Your task to perform on an android device: toggle pop-ups in chrome Image 0: 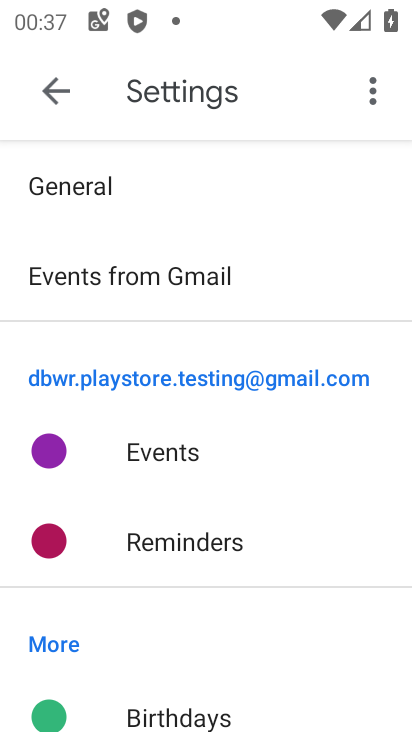
Step 0: press back button
Your task to perform on an android device: toggle pop-ups in chrome Image 1: 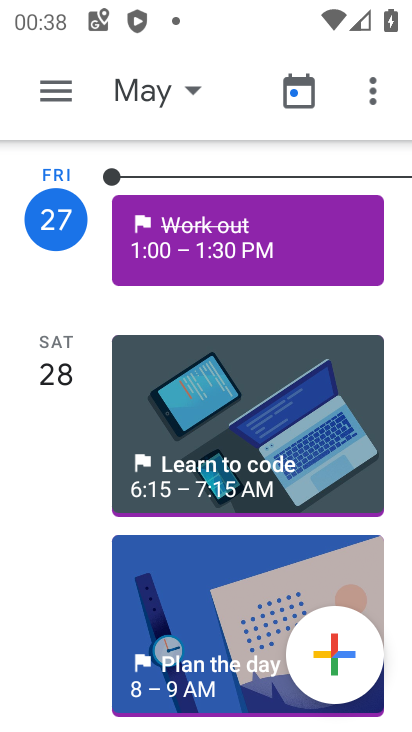
Step 1: press back button
Your task to perform on an android device: toggle pop-ups in chrome Image 2: 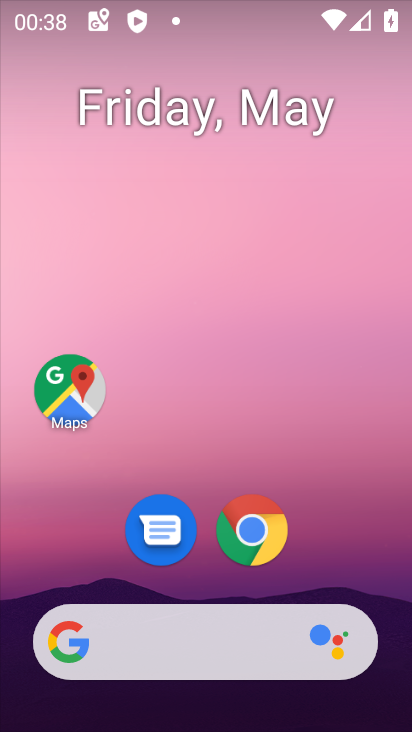
Step 2: click (252, 529)
Your task to perform on an android device: toggle pop-ups in chrome Image 3: 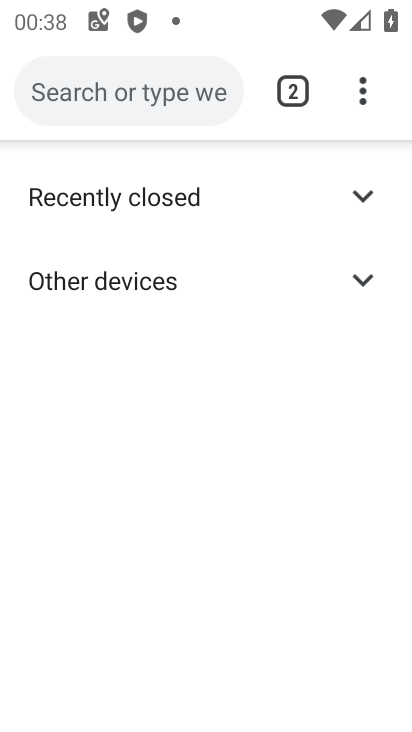
Step 3: click (361, 88)
Your task to perform on an android device: toggle pop-ups in chrome Image 4: 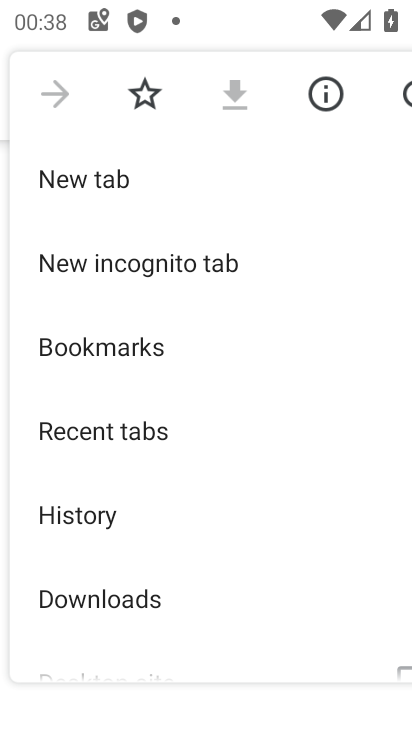
Step 4: drag from (123, 486) to (168, 415)
Your task to perform on an android device: toggle pop-ups in chrome Image 5: 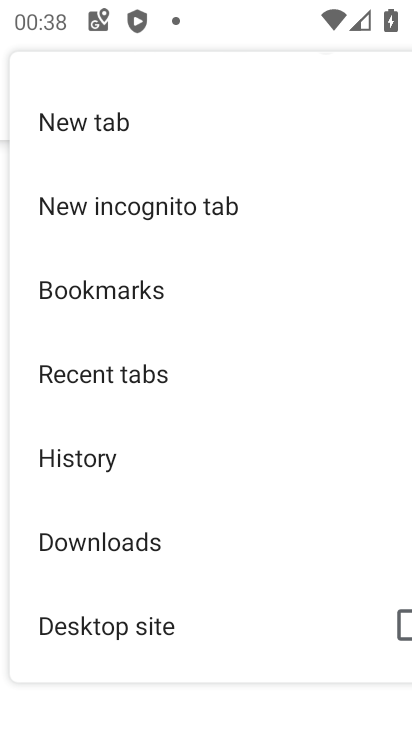
Step 5: drag from (108, 506) to (167, 427)
Your task to perform on an android device: toggle pop-ups in chrome Image 6: 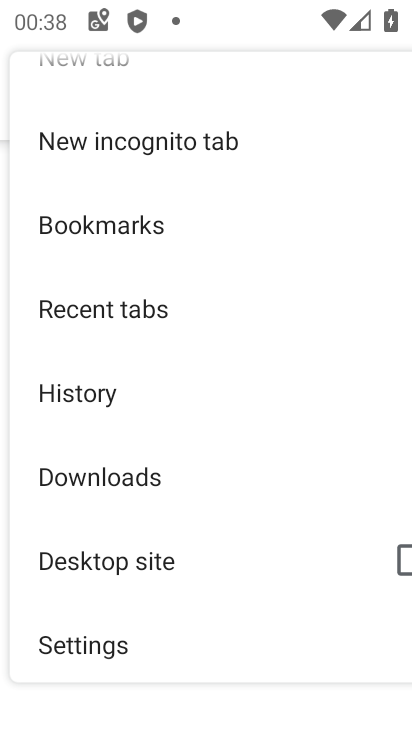
Step 6: drag from (103, 522) to (154, 418)
Your task to perform on an android device: toggle pop-ups in chrome Image 7: 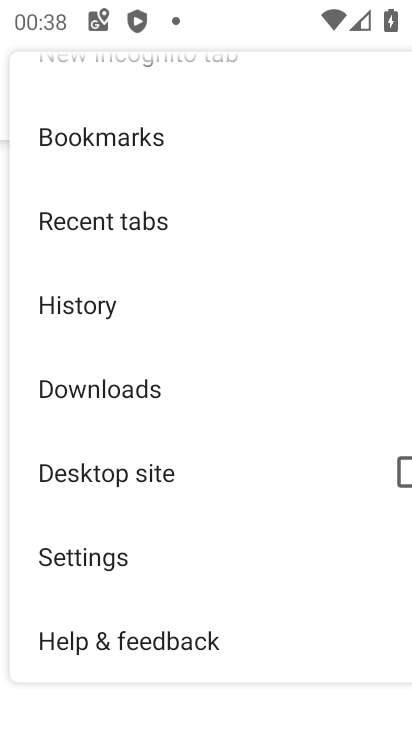
Step 7: click (73, 560)
Your task to perform on an android device: toggle pop-ups in chrome Image 8: 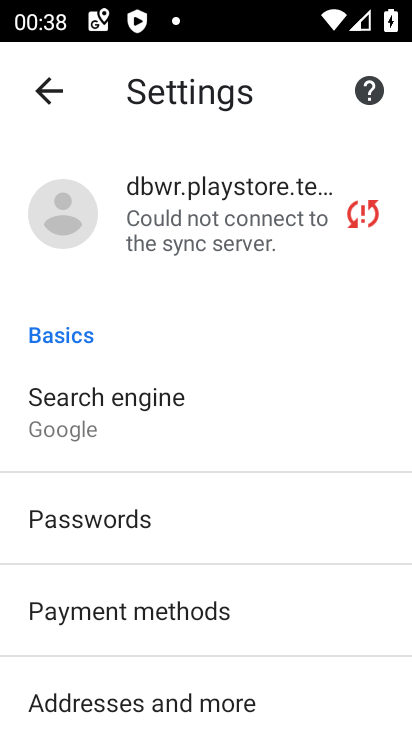
Step 8: drag from (93, 500) to (151, 419)
Your task to perform on an android device: toggle pop-ups in chrome Image 9: 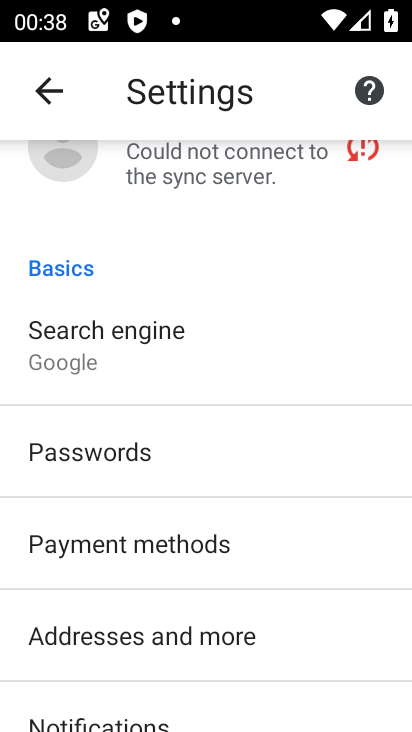
Step 9: drag from (120, 567) to (197, 472)
Your task to perform on an android device: toggle pop-ups in chrome Image 10: 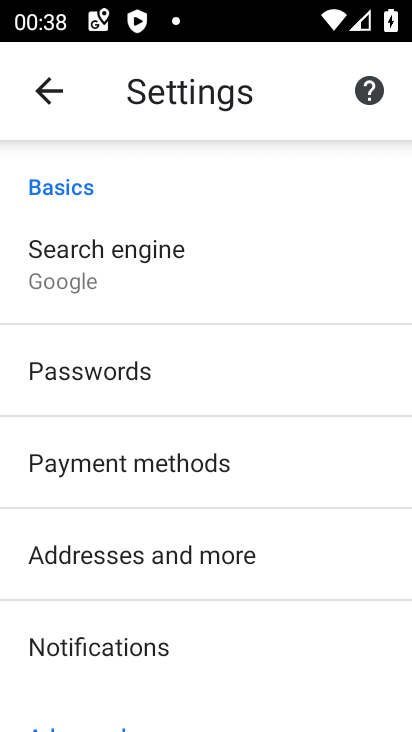
Step 10: drag from (123, 581) to (203, 480)
Your task to perform on an android device: toggle pop-ups in chrome Image 11: 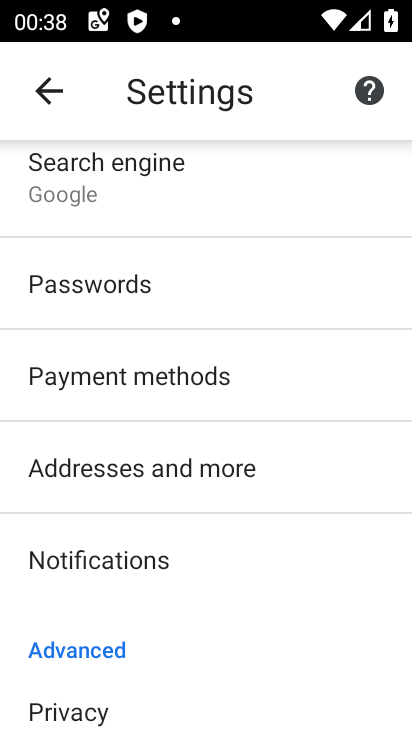
Step 11: drag from (125, 600) to (210, 489)
Your task to perform on an android device: toggle pop-ups in chrome Image 12: 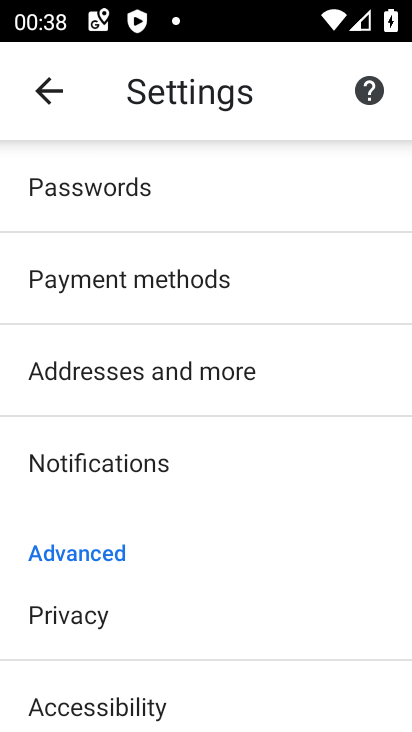
Step 12: drag from (104, 602) to (188, 499)
Your task to perform on an android device: toggle pop-ups in chrome Image 13: 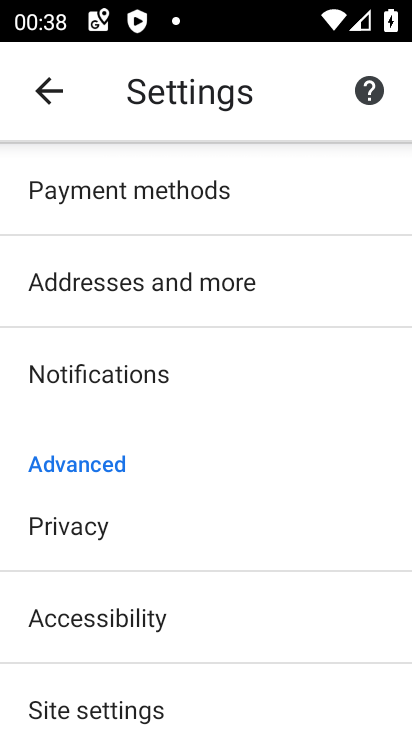
Step 13: drag from (106, 596) to (222, 480)
Your task to perform on an android device: toggle pop-ups in chrome Image 14: 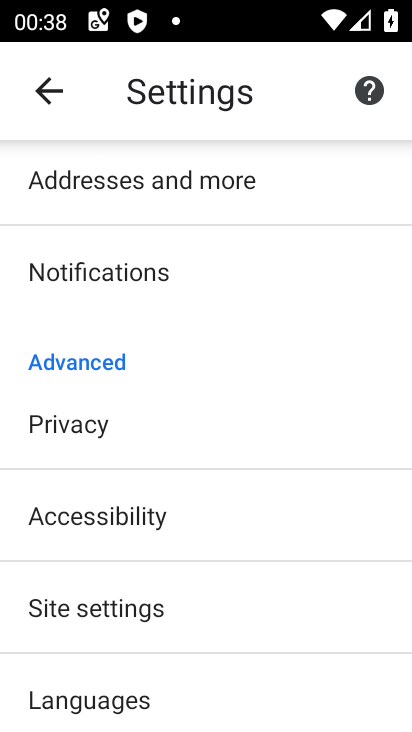
Step 14: click (106, 631)
Your task to perform on an android device: toggle pop-ups in chrome Image 15: 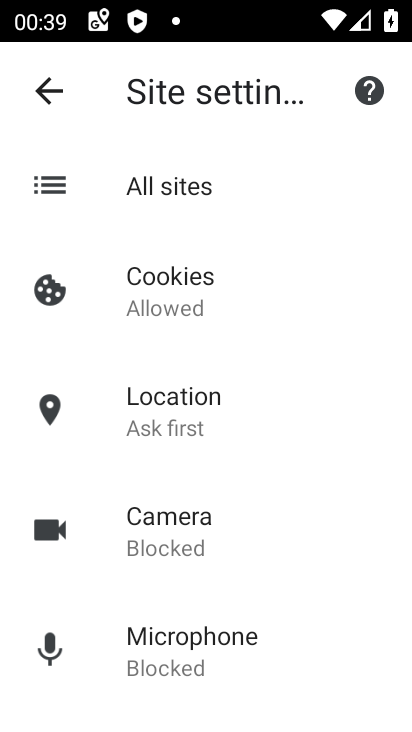
Step 15: drag from (105, 510) to (162, 416)
Your task to perform on an android device: toggle pop-ups in chrome Image 16: 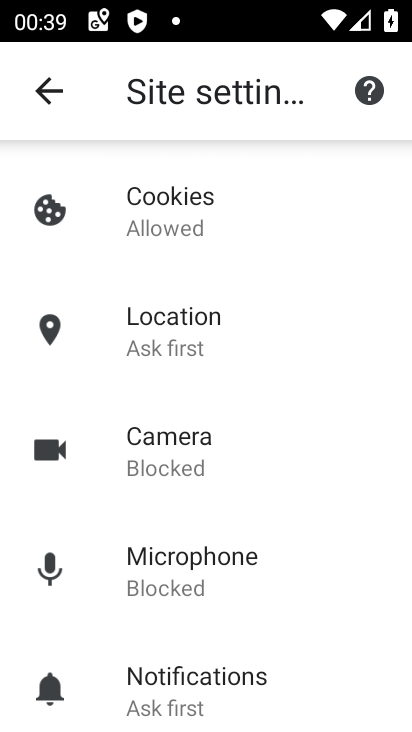
Step 16: drag from (141, 611) to (221, 493)
Your task to perform on an android device: toggle pop-ups in chrome Image 17: 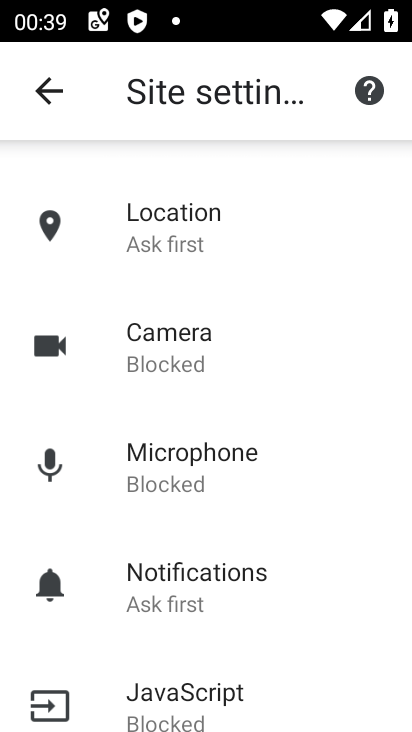
Step 17: drag from (171, 654) to (271, 531)
Your task to perform on an android device: toggle pop-ups in chrome Image 18: 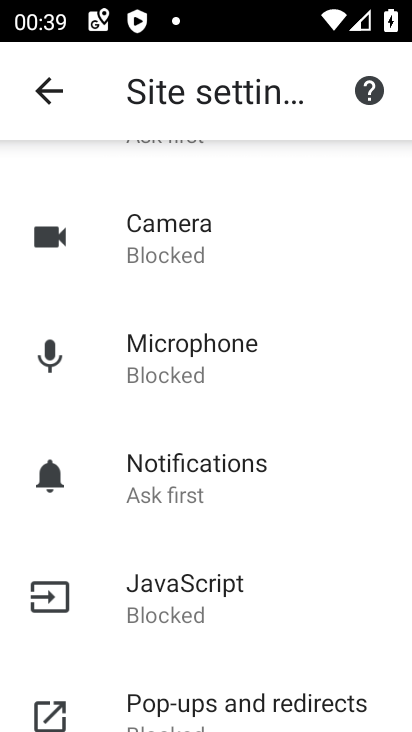
Step 18: drag from (167, 662) to (297, 520)
Your task to perform on an android device: toggle pop-ups in chrome Image 19: 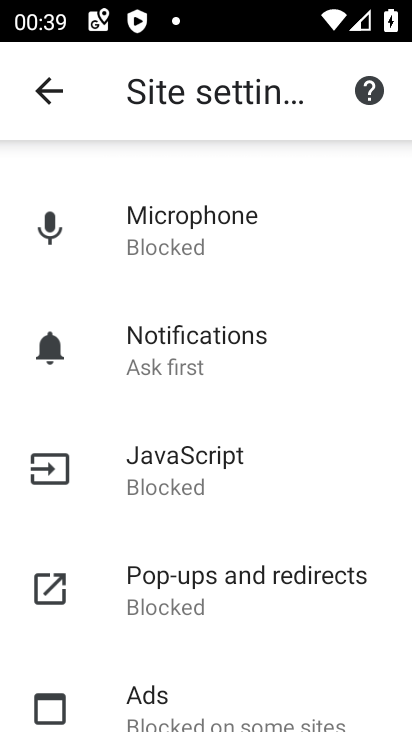
Step 19: click (242, 594)
Your task to perform on an android device: toggle pop-ups in chrome Image 20: 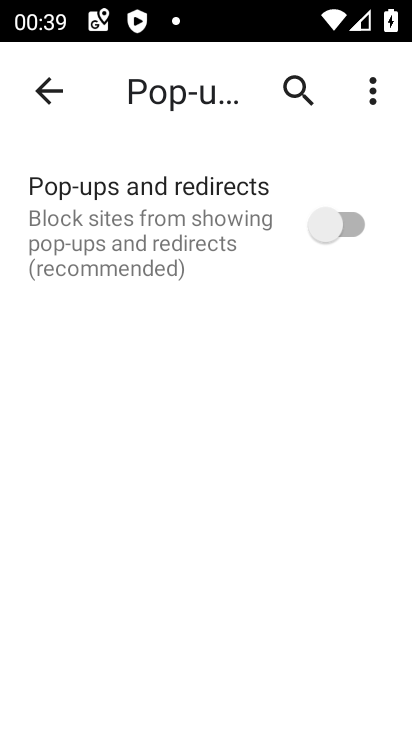
Step 20: click (350, 220)
Your task to perform on an android device: toggle pop-ups in chrome Image 21: 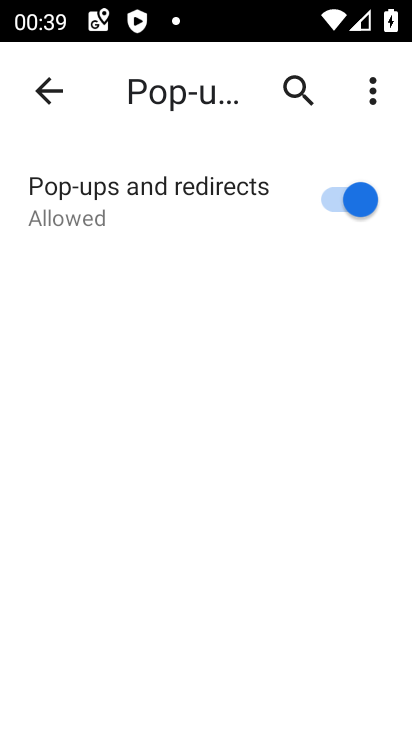
Step 21: task complete